Your task to perform on an android device: turn off smart reply in the gmail app Image 0: 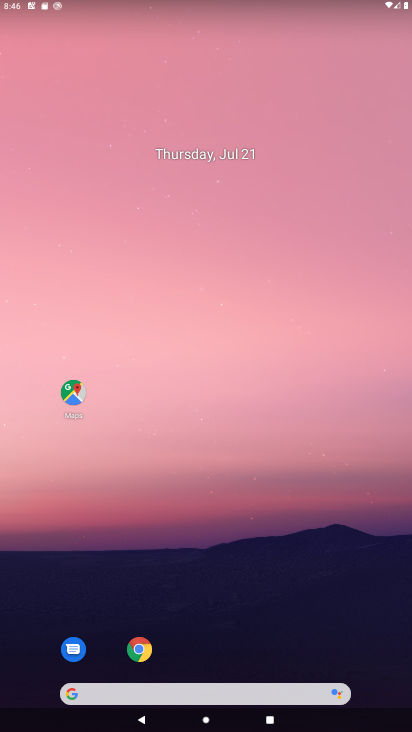
Step 0: drag from (194, 645) to (281, 113)
Your task to perform on an android device: turn off smart reply in the gmail app Image 1: 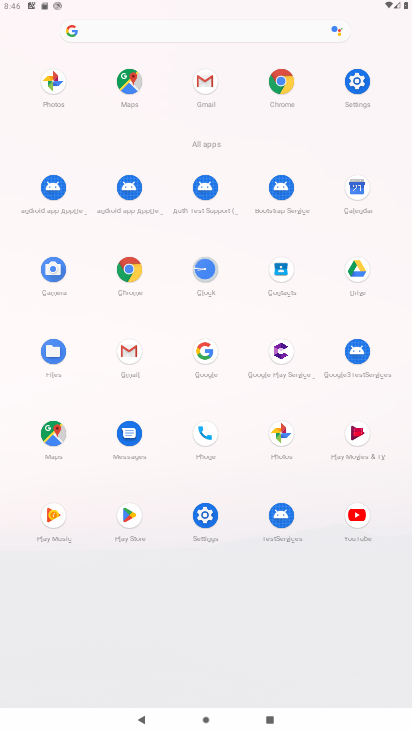
Step 1: click (204, 80)
Your task to perform on an android device: turn off smart reply in the gmail app Image 2: 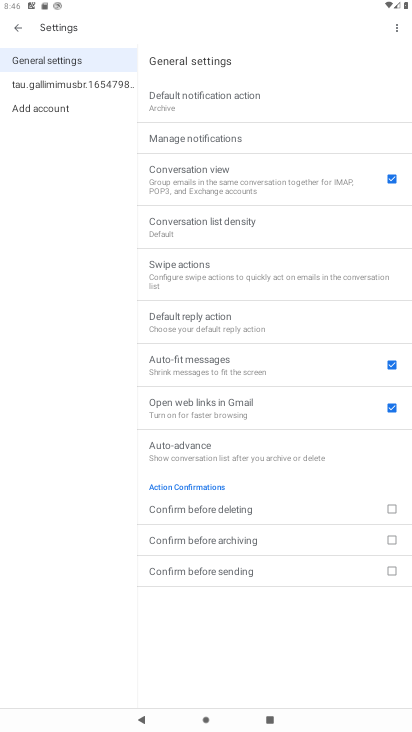
Step 2: click (45, 80)
Your task to perform on an android device: turn off smart reply in the gmail app Image 3: 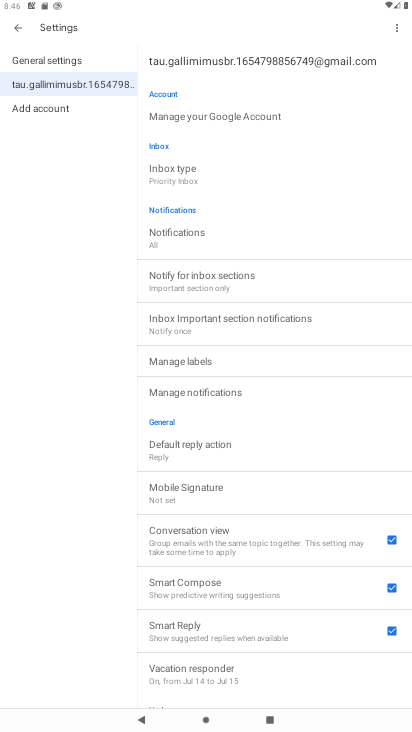
Step 3: click (393, 631)
Your task to perform on an android device: turn off smart reply in the gmail app Image 4: 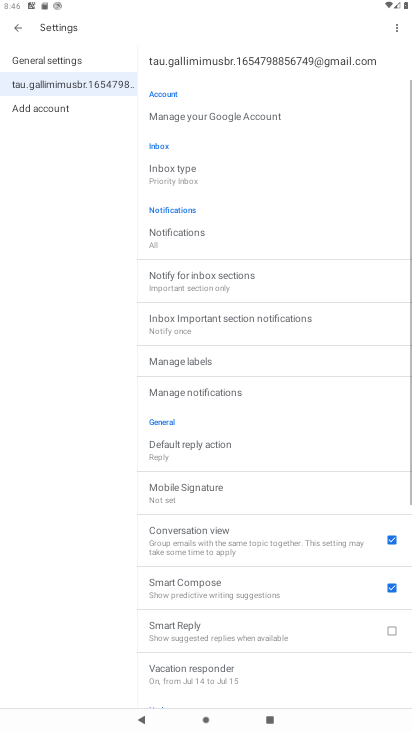
Step 4: task complete